Your task to perform on an android device: open app "AliExpress" Image 0: 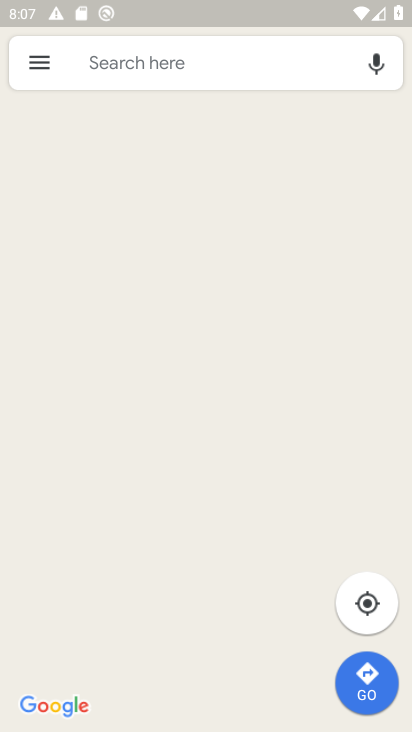
Step 0: press home button
Your task to perform on an android device: open app "AliExpress" Image 1: 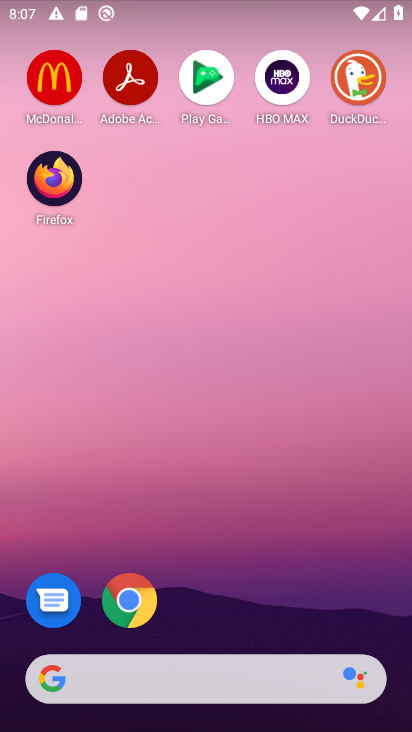
Step 1: drag from (188, 590) to (170, 238)
Your task to perform on an android device: open app "AliExpress" Image 2: 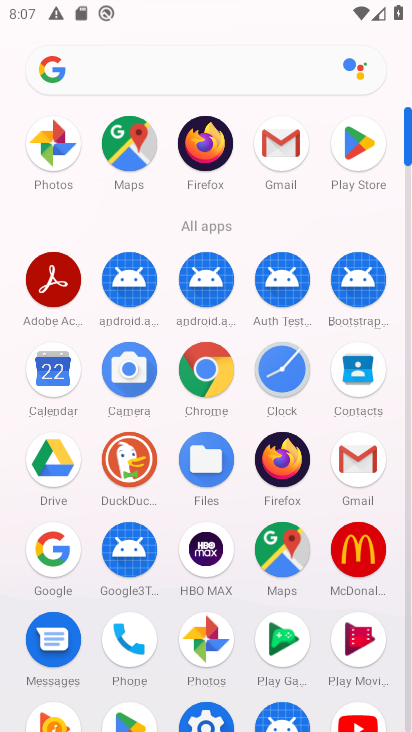
Step 2: click (346, 150)
Your task to perform on an android device: open app "AliExpress" Image 3: 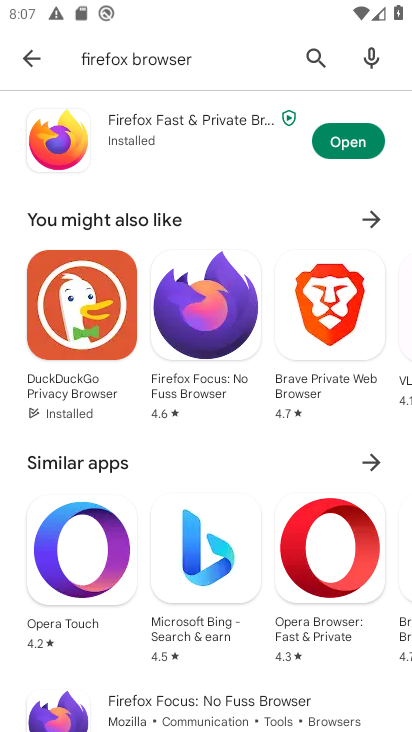
Step 3: click (312, 64)
Your task to perform on an android device: open app "AliExpress" Image 4: 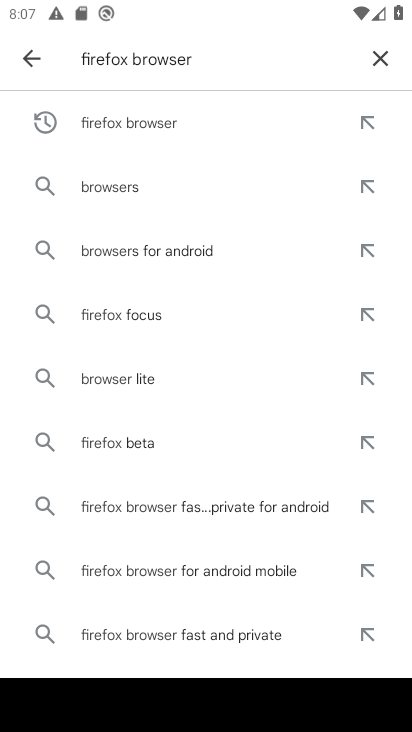
Step 4: click (374, 50)
Your task to perform on an android device: open app "AliExpress" Image 5: 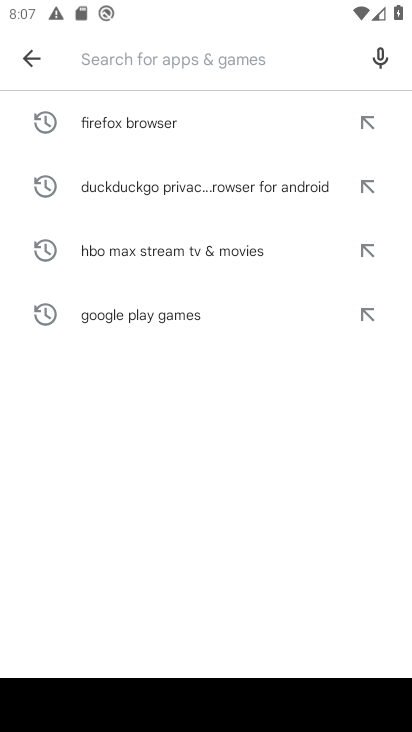
Step 5: type "AliExpress"
Your task to perform on an android device: open app "AliExpress" Image 6: 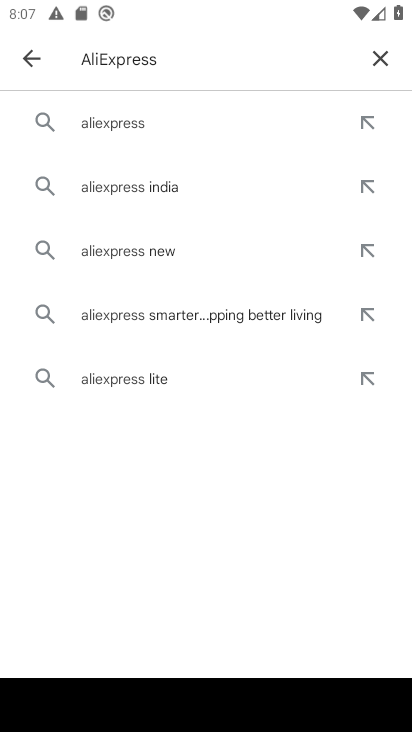
Step 6: click (144, 126)
Your task to perform on an android device: open app "AliExpress" Image 7: 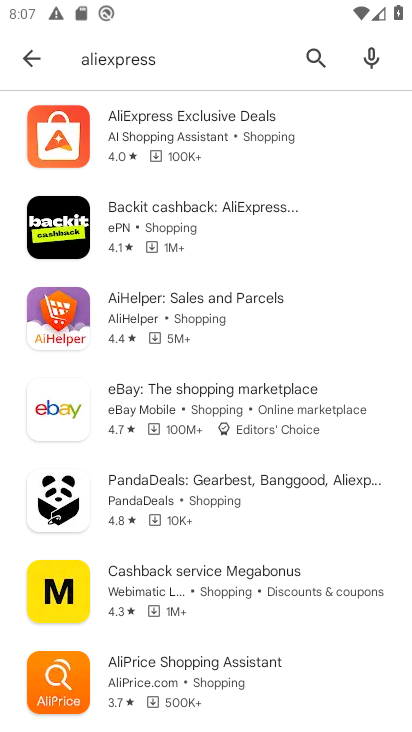
Step 7: click (202, 153)
Your task to perform on an android device: open app "AliExpress" Image 8: 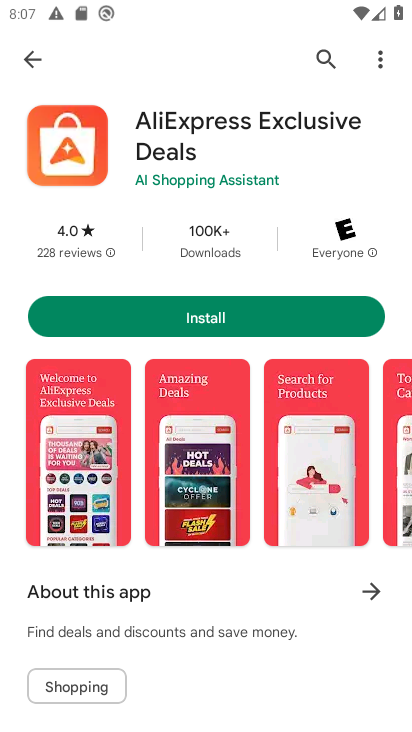
Step 8: task complete